Your task to perform on an android device: Go to accessibility settings Image 0: 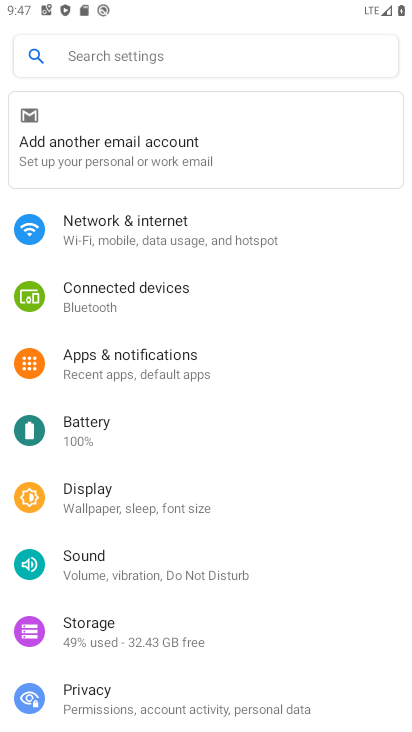
Step 0: drag from (180, 626) to (156, 186)
Your task to perform on an android device: Go to accessibility settings Image 1: 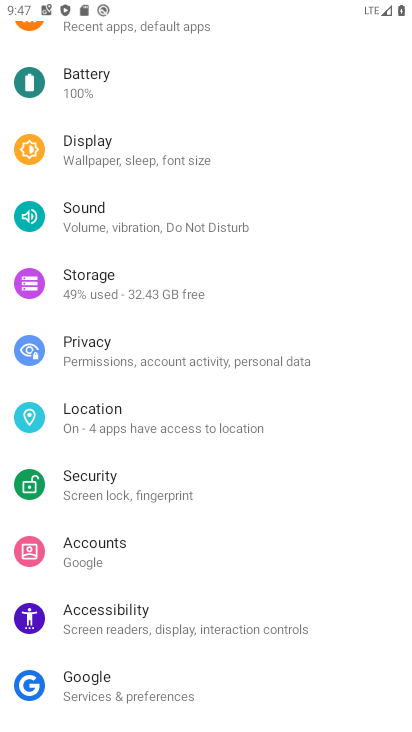
Step 1: click (149, 612)
Your task to perform on an android device: Go to accessibility settings Image 2: 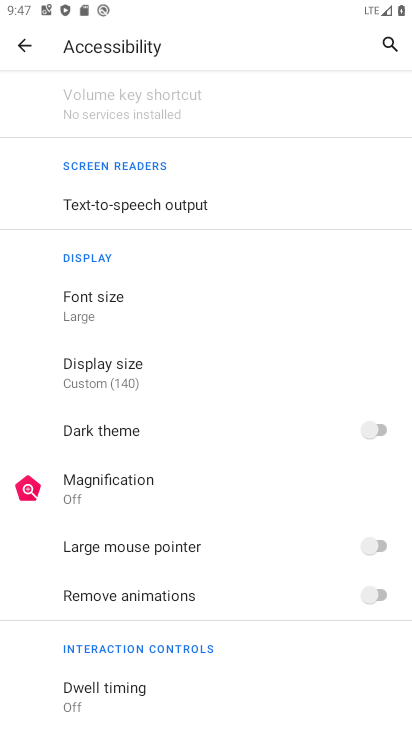
Step 2: task complete